Your task to perform on an android device: What's the weather today? Image 0: 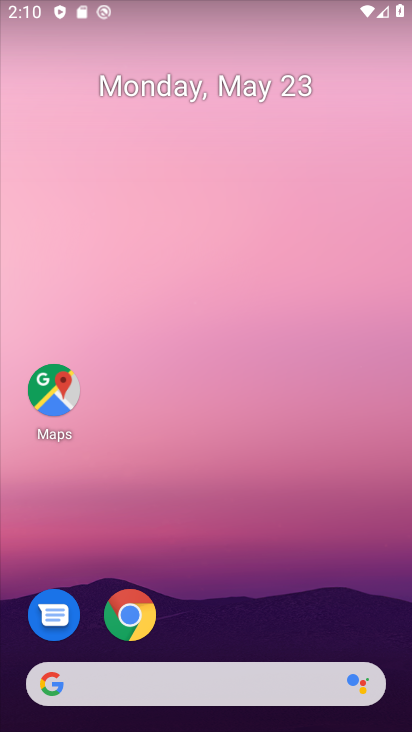
Step 0: press home button
Your task to perform on an android device: What's the weather today? Image 1: 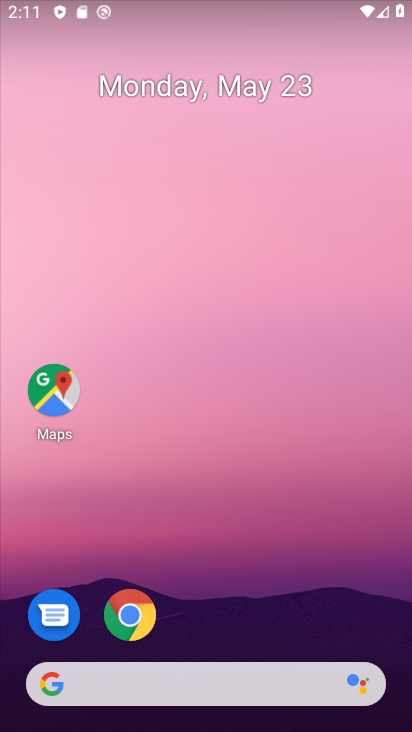
Step 1: drag from (365, 585) to (375, 115)
Your task to perform on an android device: What's the weather today? Image 2: 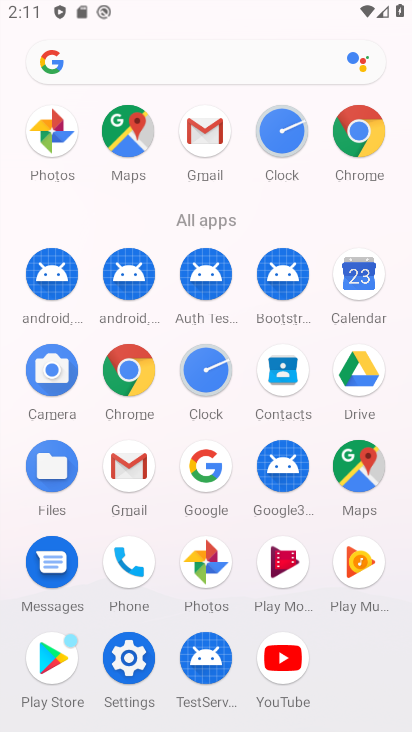
Step 2: click (237, 48)
Your task to perform on an android device: What's the weather today? Image 3: 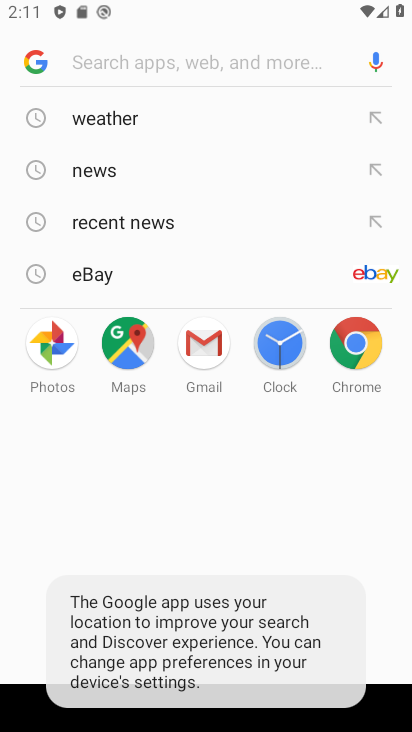
Step 3: click (142, 124)
Your task to perform on an android device: What's the weather today? Image 4: 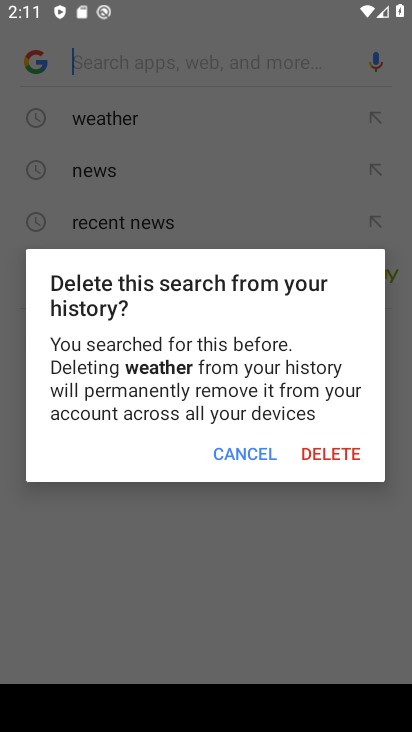
Step 4: click (254, 454)
Your task to perform on an android device: What's the weather today? Image 5: 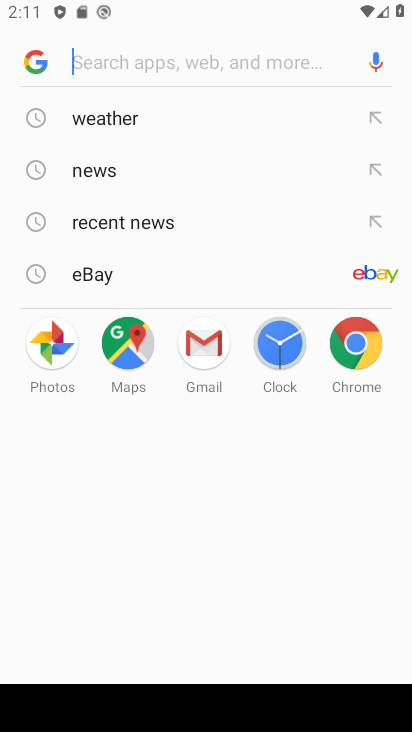
Step 5: click (134, 128)
Your task to perform on an android device: What's the weather today? Image 6: 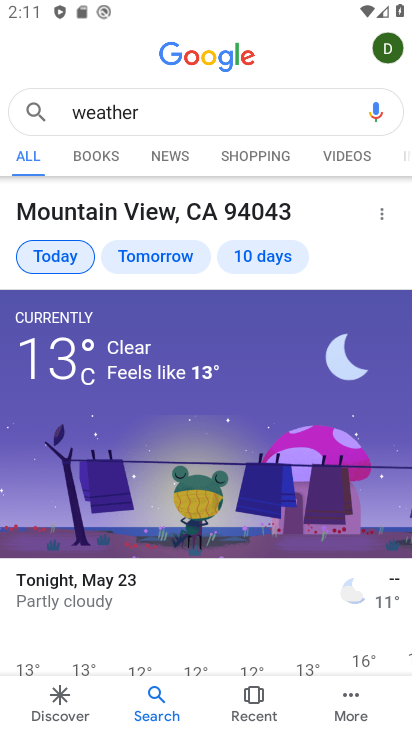
Step 6: task complete